Your task to perform on an android device: open a bookmark in the chrome app Image 0: 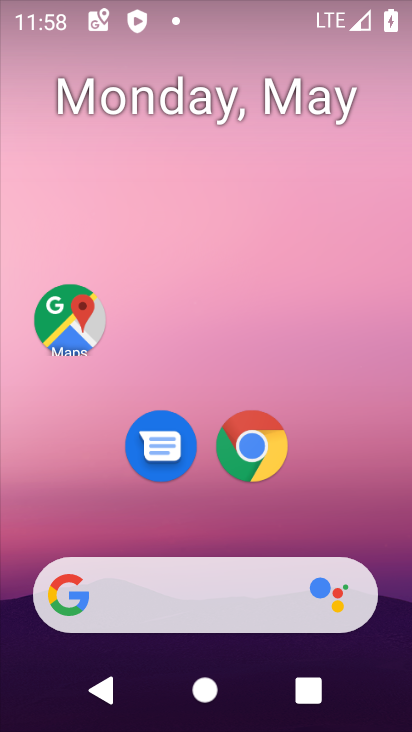
Step 0: drag from (324, 460) to (288, 98)
Your task to perform on an android device: open a bookmark in the chrome app Image 1: 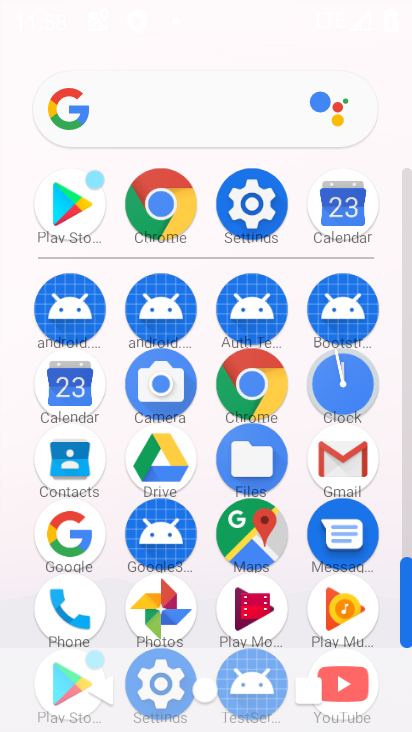
Step 1: click (162, 191)
Your task to perform on an android device: open a bookmark in the chrome app Image 2: 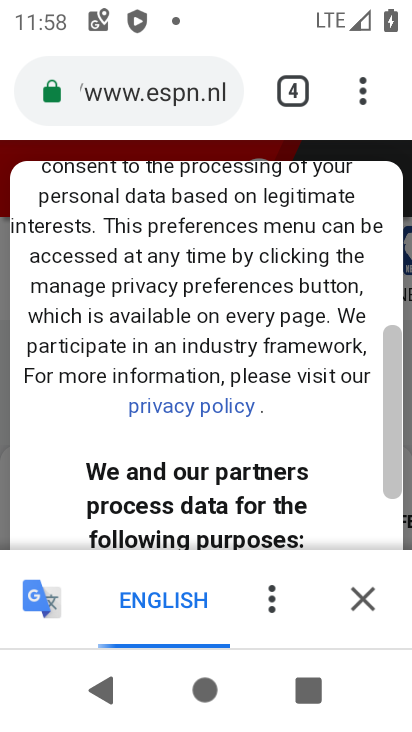
Step 2: task complete